Your task to perform on an android device: Open wifi settings Image 0: 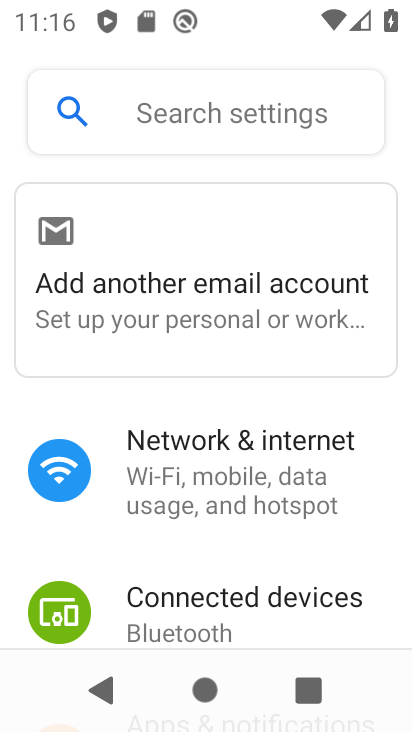
Step 0: press home button
Your task to perform on an android device: Open wifi settings Image 1: 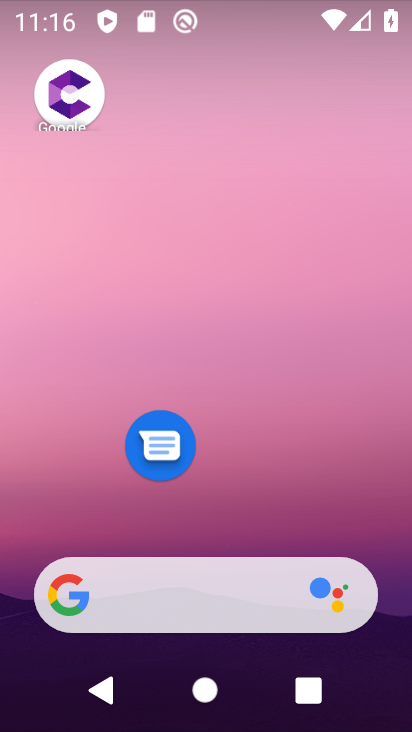
Step 1: drag from (178, 600) to (351, 111)
Your task to perform on an android device: Open wifi settings Image 2: 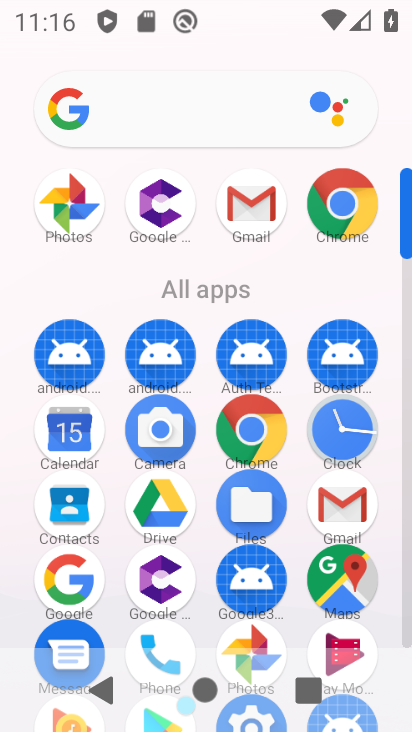
Step 2: drag from (201, 629) to (346, 181)
Your task to perform on an android device: Open wifi settings Image 3: 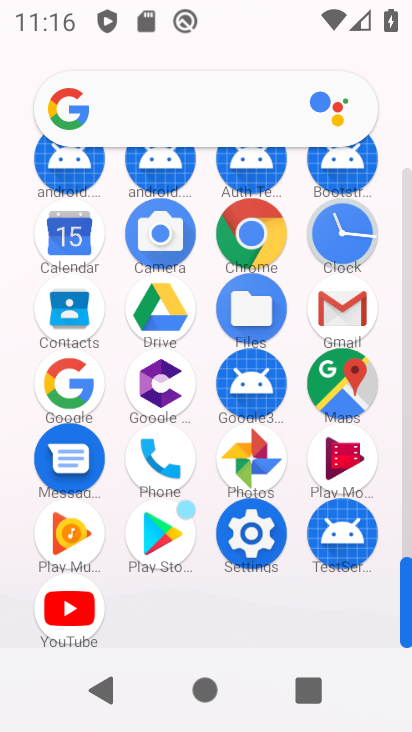
Step 3: click (253, 536)
Your task to perform on an android device: Open wifi settings Image 4: 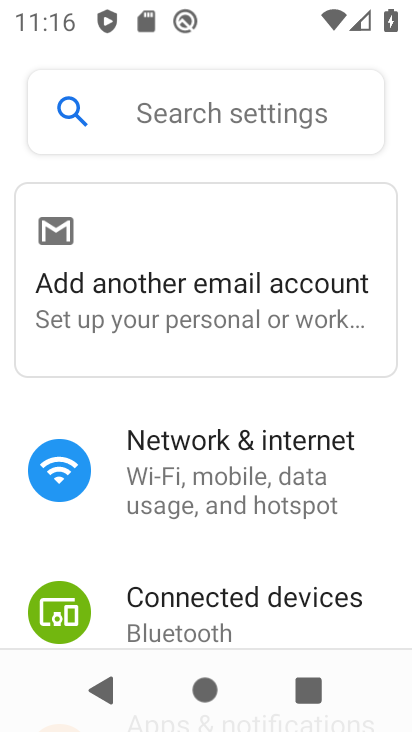
Step 4: click (249, 474)
Your task to perform on an android device: Open wifi settings Image 5: 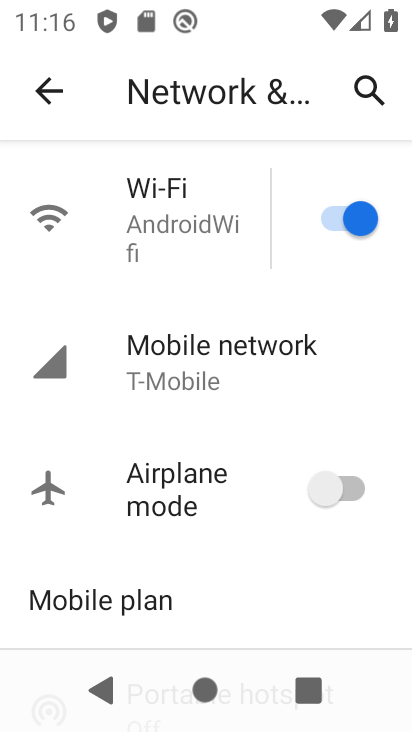
Step 5: click (189, 221)
Your task to perform on an android device: Open wifi settings Image 6: 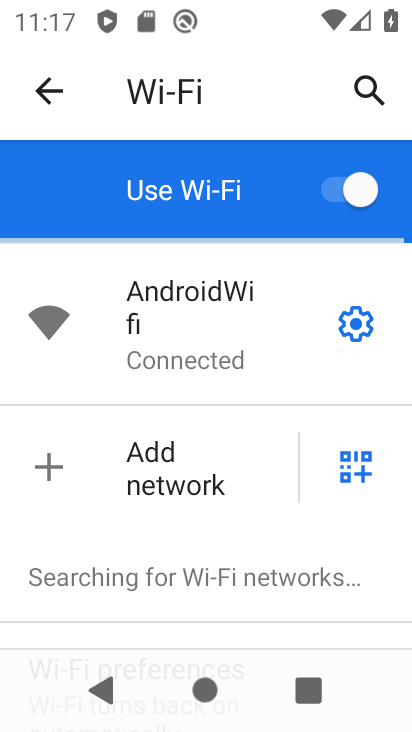
Step 6: task complete